Your task to perform on an android device: Clear the cart on amazon.com. Image 0: 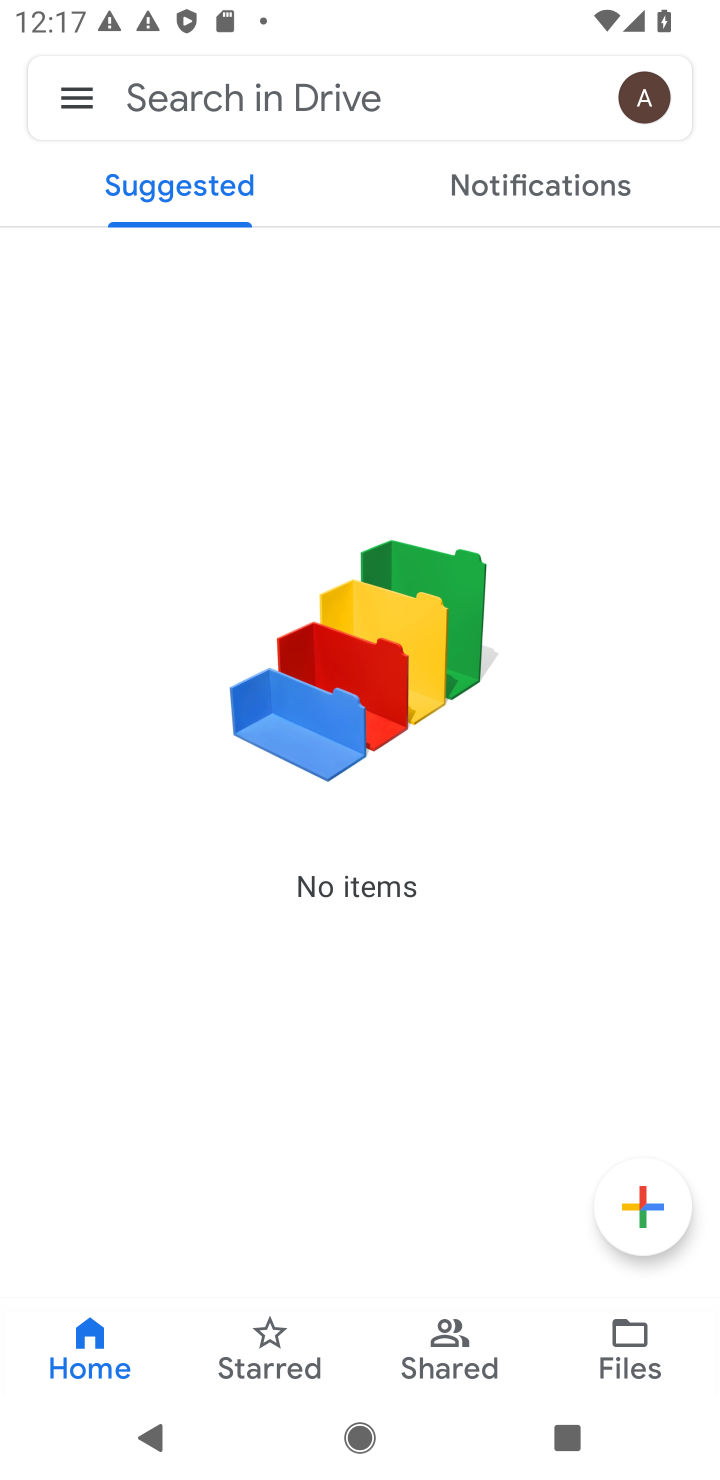
Step 0: press home button
Your task to perform on an android device: Clear the cart on amazon.com. Image 1: 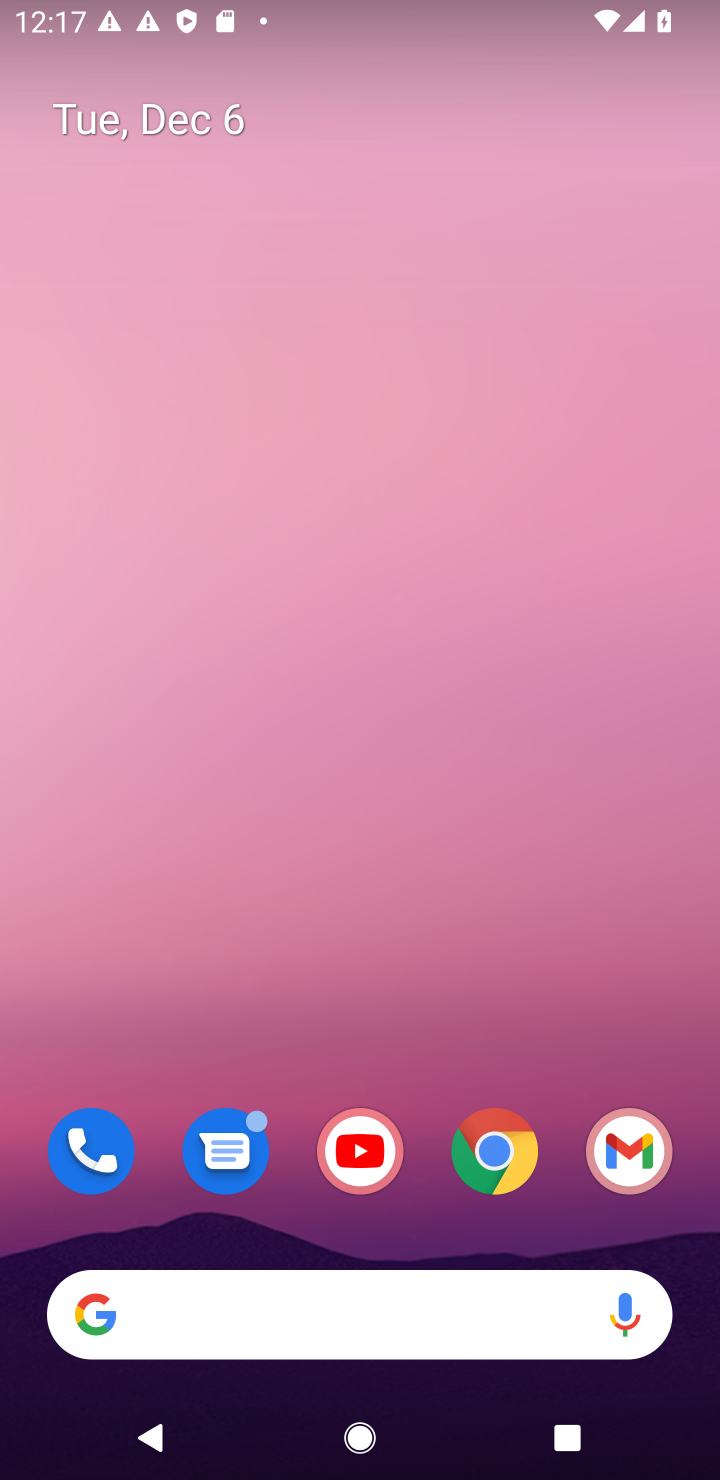
Step 1: click (499, 1161)
Your task to perform on an android device: Clear the cart on amazon.com. Image 2: 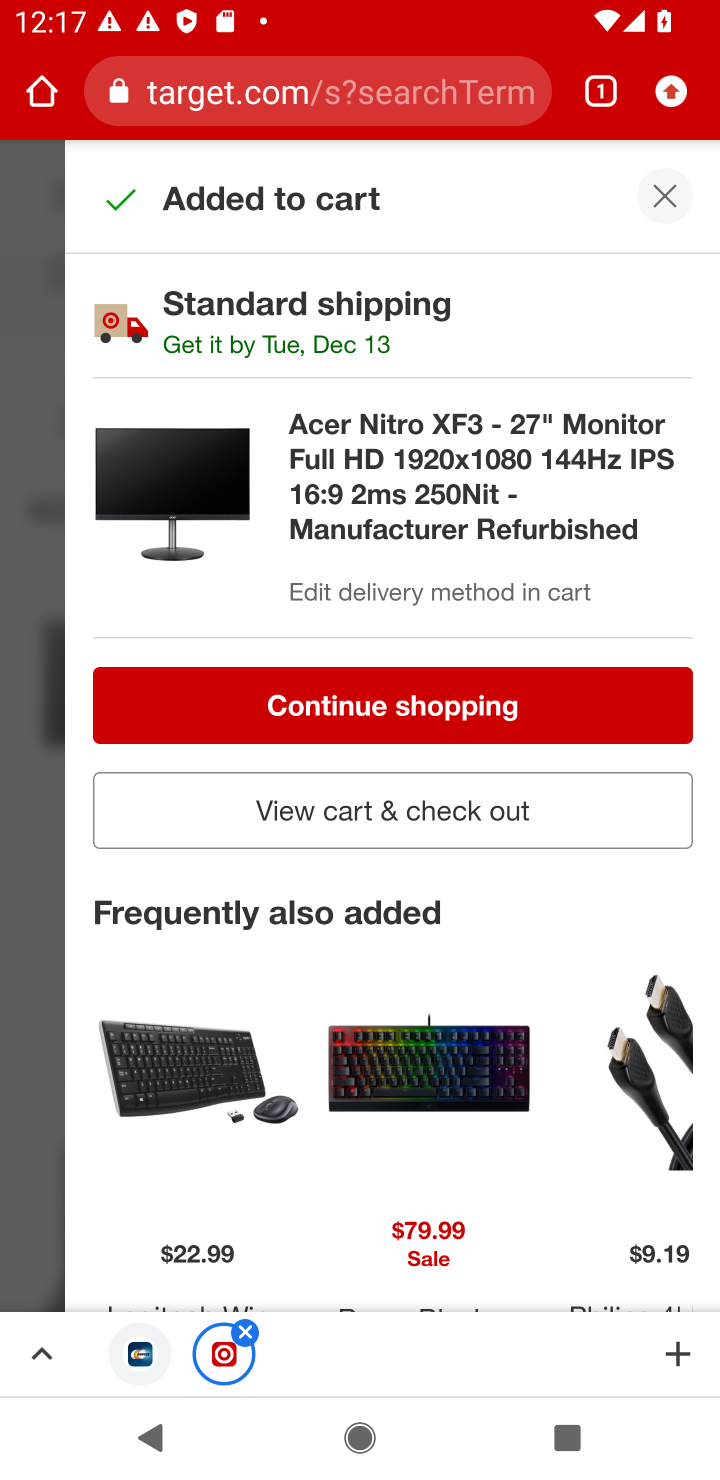
Step 2: click (226, 98)
Your task to perform on an android device: Clear the cart on amazon.com. Image 3: 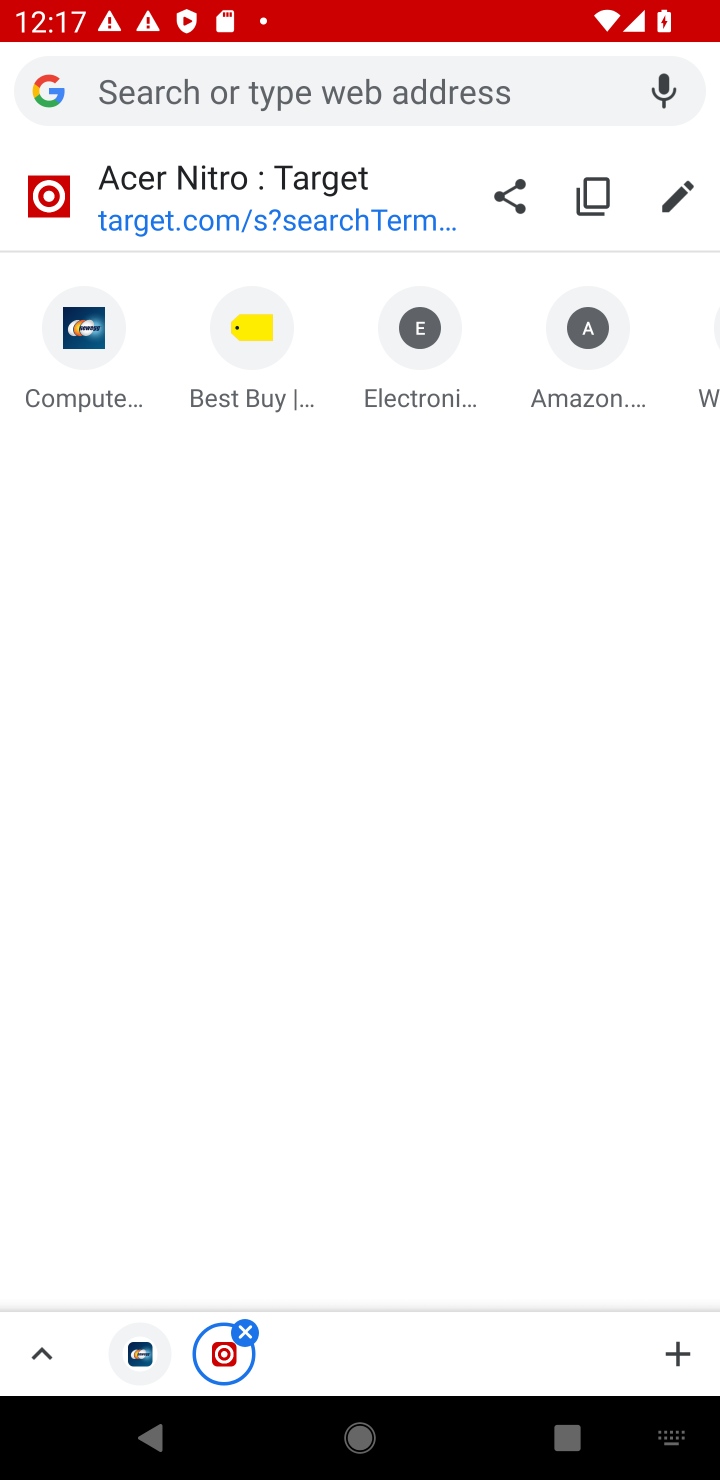
Step 3: click (562, 382)
Your task to perform on an android device: Clear the cart on amazon.com. Image 4: 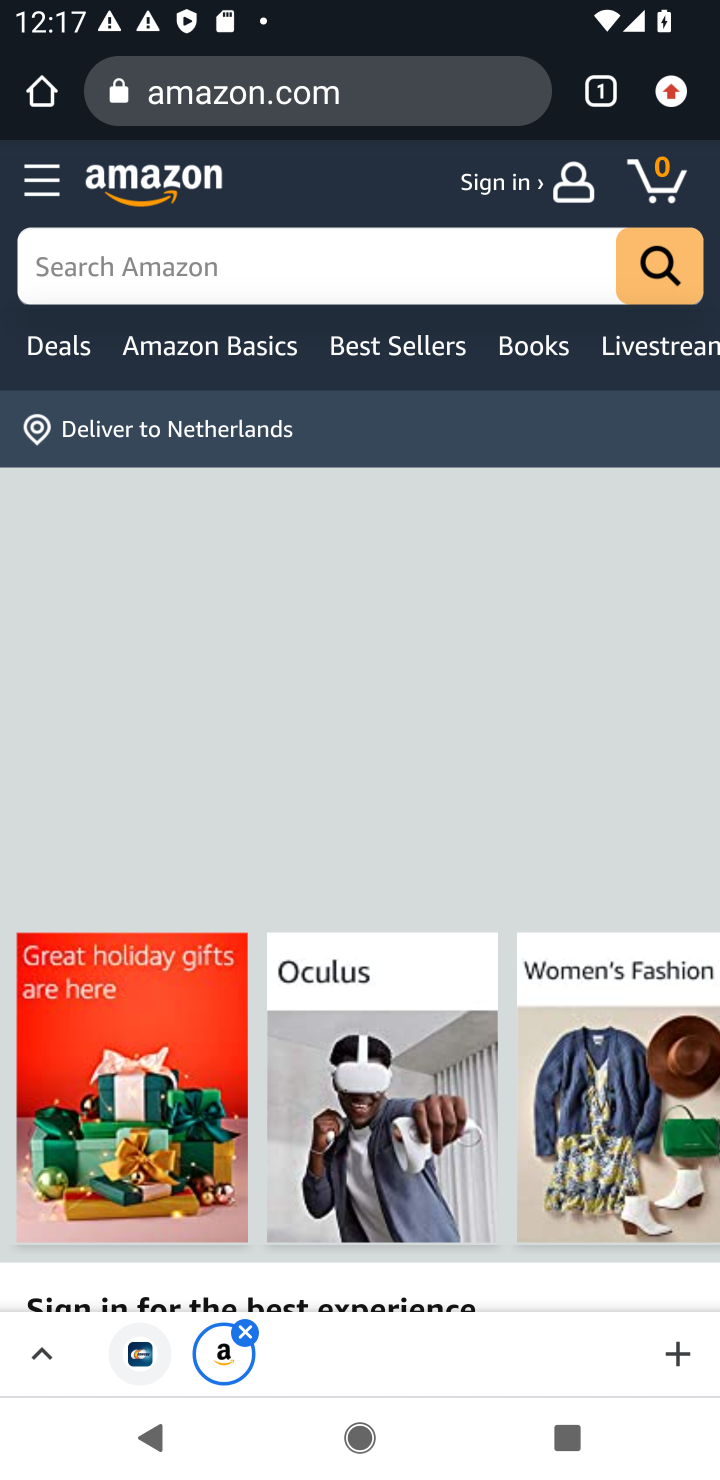
Step 4: click (665, 190)
Your task to perform on an android device: Clear the cart on amazon.com. Image 5: 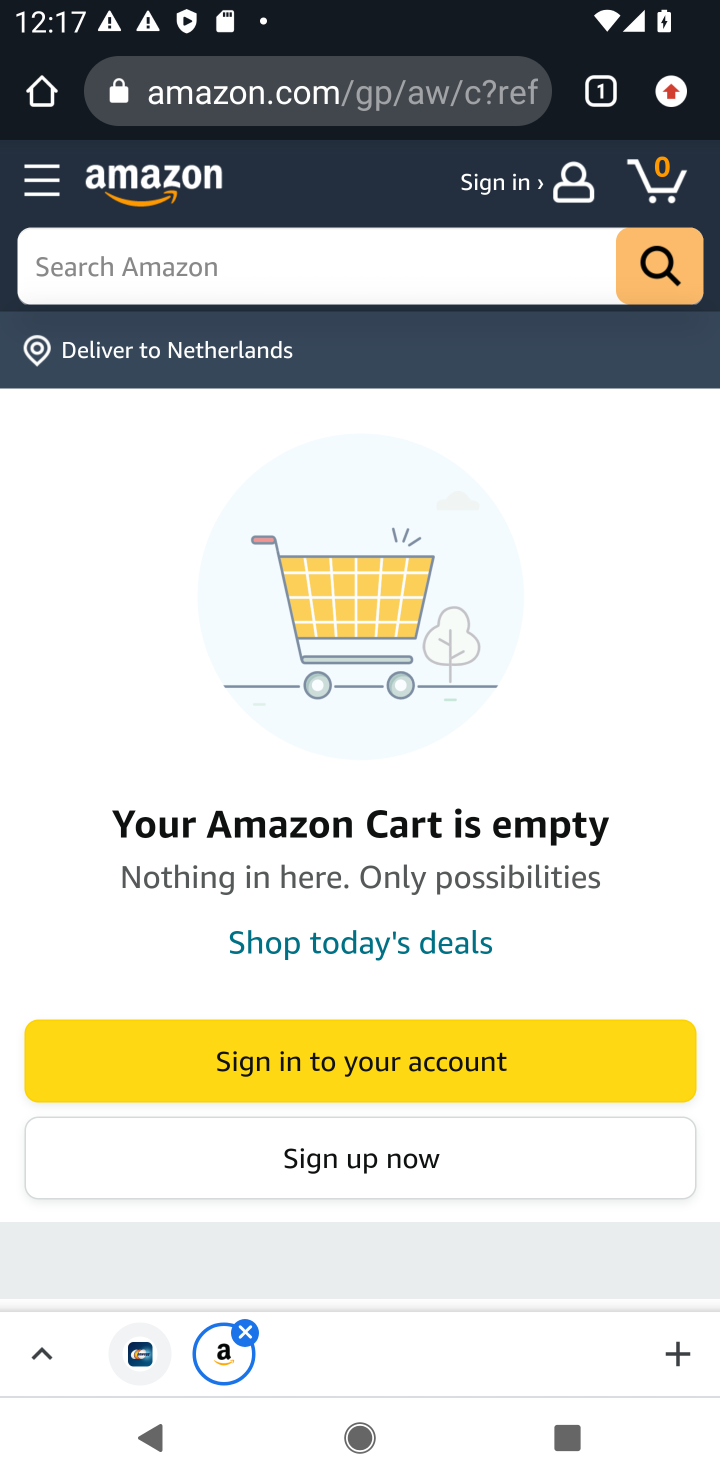
Step 5: task complete